Your task to perform on an android device: toggle wifi Image 0: 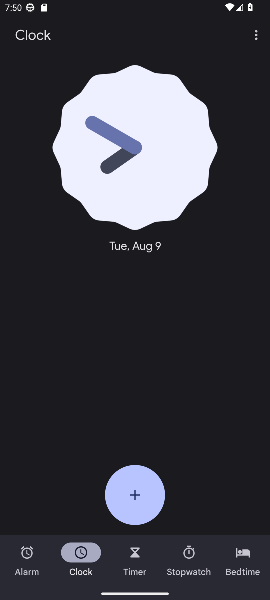
Step 0: press home button
Your task to perform on an android device: toggle wifi Image 1: 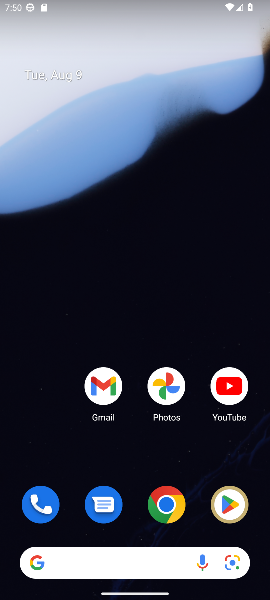
Step 1: drag from (235, 0) to (186, 473)
Your task to perform on an android device: toggle wifi Image 2: 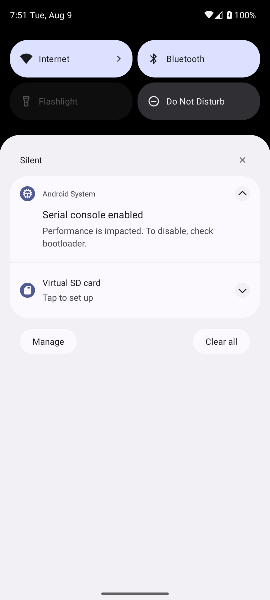
Step 2: click (70, 56)
Your task to perform on an android device: toggle wifi Image 3: 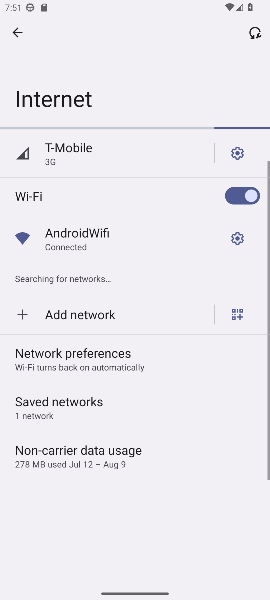
Step 3: click (241, 197)
Your task to perform on an android device: toggle wifi Image 4: 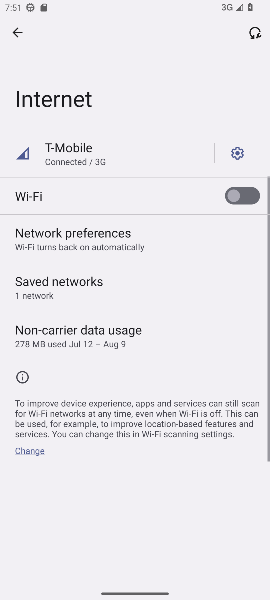
Step 4: task complete